Your task to perform on an android device: Open the calendar app, open the side menu, and click the "Day" option Image 0: 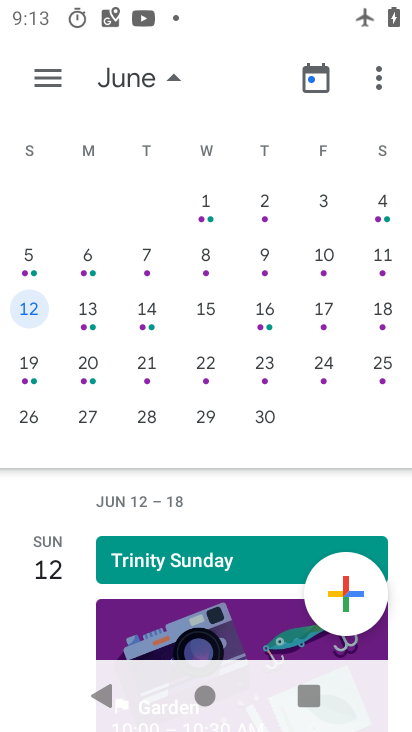
Step 0: press home button
Your task to perform on an android device: Open the calendar app, open the side menu, and click the "Day" option Image 1: 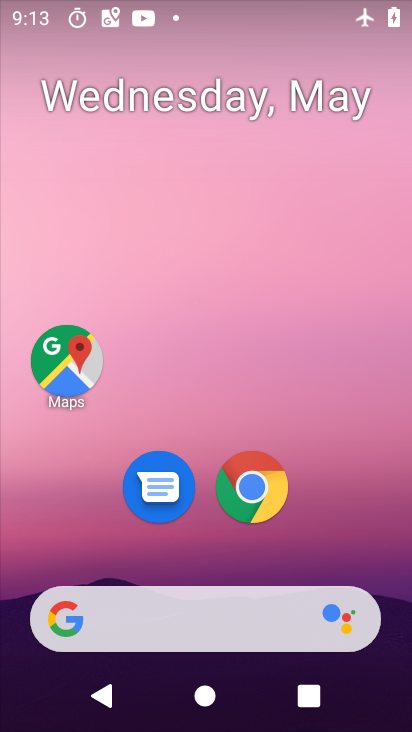
Step 1: drag from (191, 535) to (239, 163)
Your task to perform on an android device: Open the calendar app, open the side menu, and click the "Day" option Image 2: 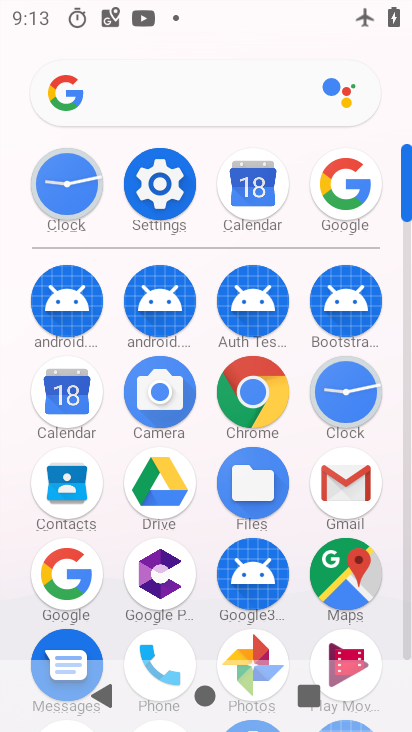
Step 2: click (57, 386)
Your task to perform on an android device: Open the calendar app, open the side menu, and click the "Day" option Image 3: 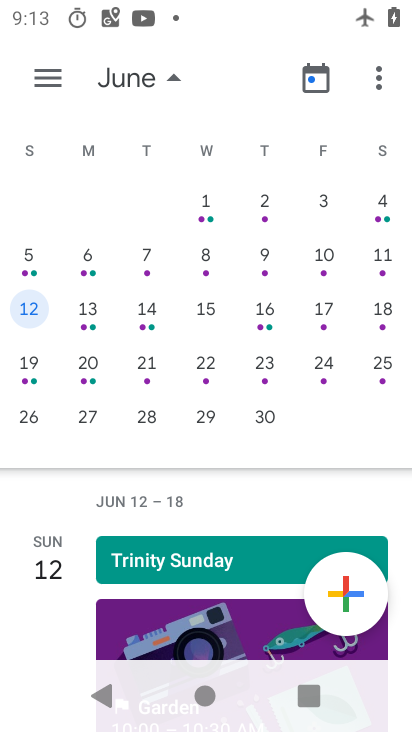
Step 3: click (46, 88)
Your task to perform on an android device: Open the calendar app, open the side menu, and click the "Day" option Image 4: 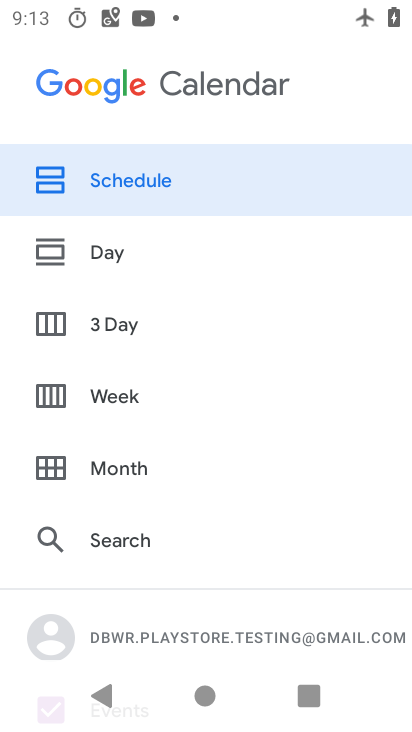
Step 4: click (120, 248)
Your task to perform on an android device: Open the calendar app, open the side menu, and click the "Day" option Image 5: 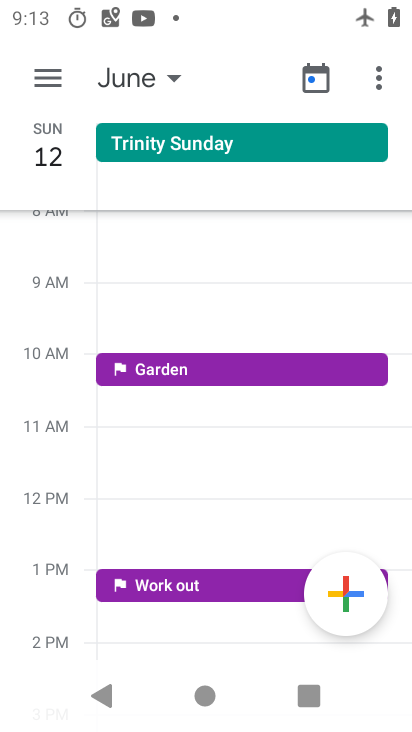
Step 5: task complete